Your task to perform on an android device: add a contact Image 0: 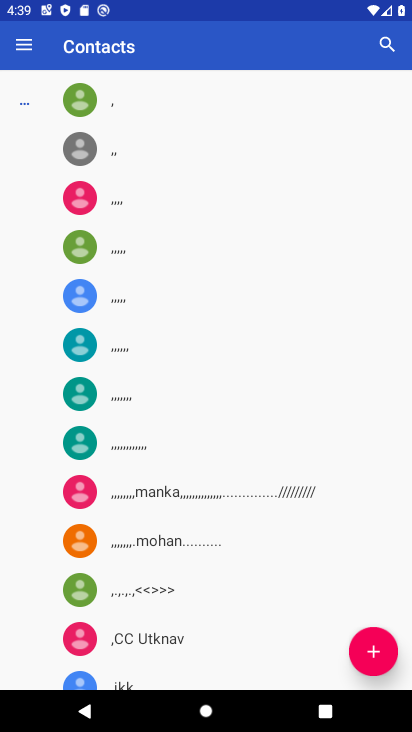
Step 0: click (375, 646)
Your task to perform on an android device: add a contact Image 1: 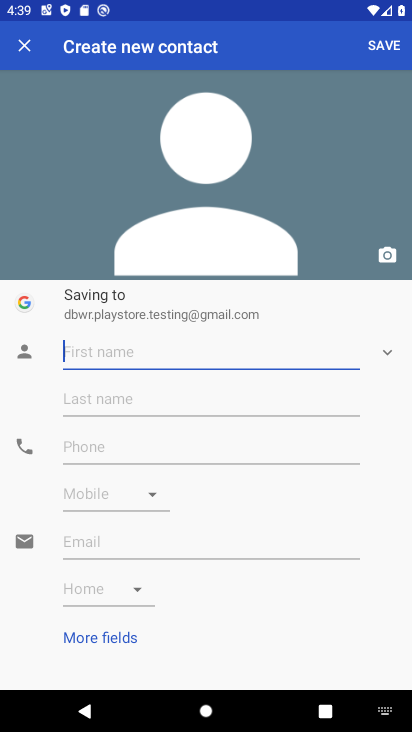
Step 1: click (105, 349)
Your task to perform on an android device: add a contact Image 2: 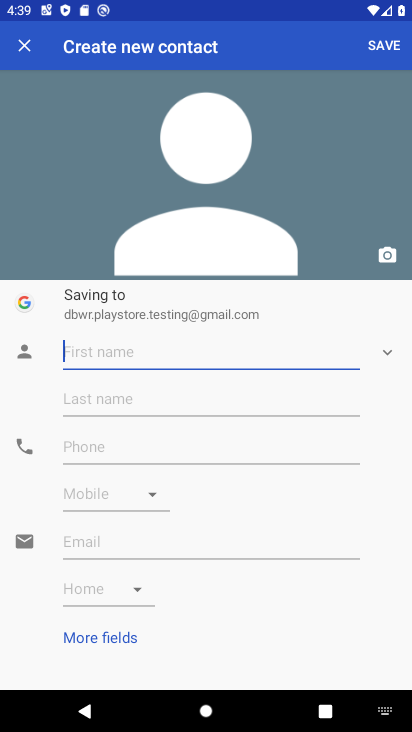
Step 2: type "vgv"
Your task to perform on an android device: add a contact Image 3: 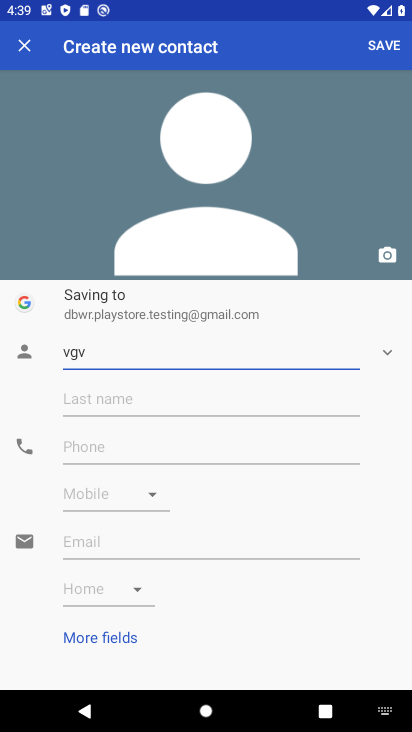
Step 3: click (105, 448)
Your task to perform on an android device: add a contact Image 4: 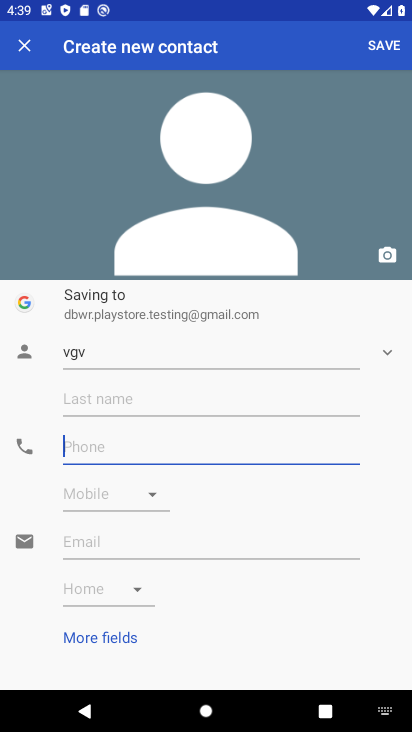
Step 4: type "8786"
Your task to perform on an android device: add a contact Image 5: 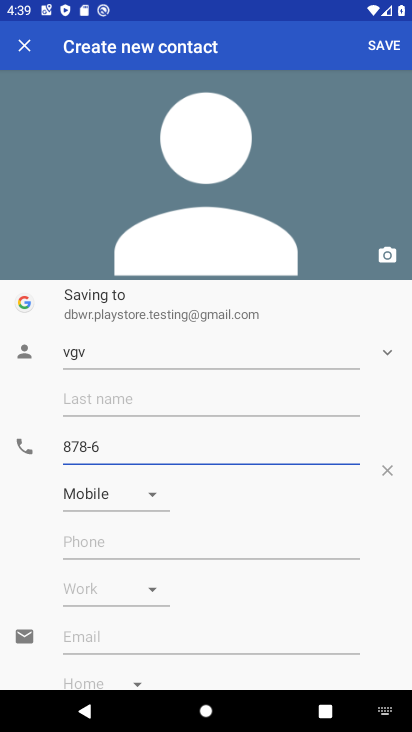
Step 5: click (393, 44)
Your task to perform on an android device: add a contact Image 6: 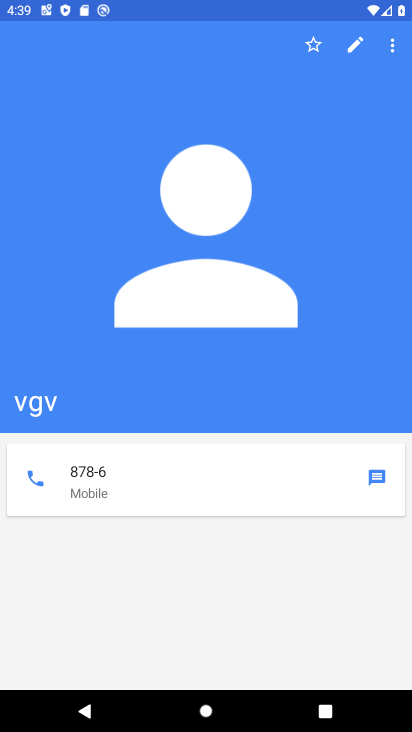
Step 6: task complete